Your task to perform on an android device: Go to Google Image 0: 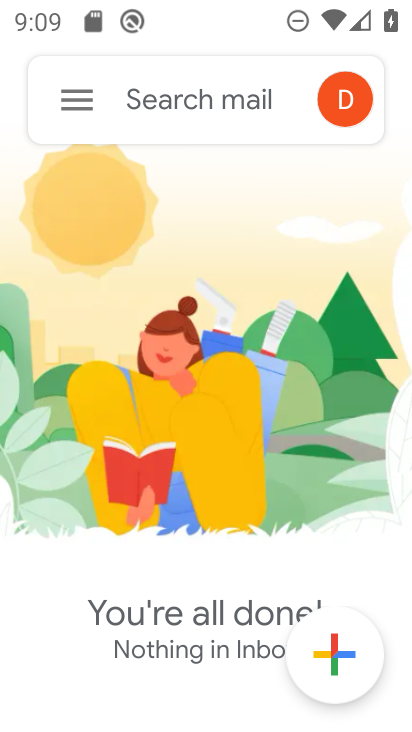
Step 0: press home button
Your task to perform on an android device: Go to Google Image 1: 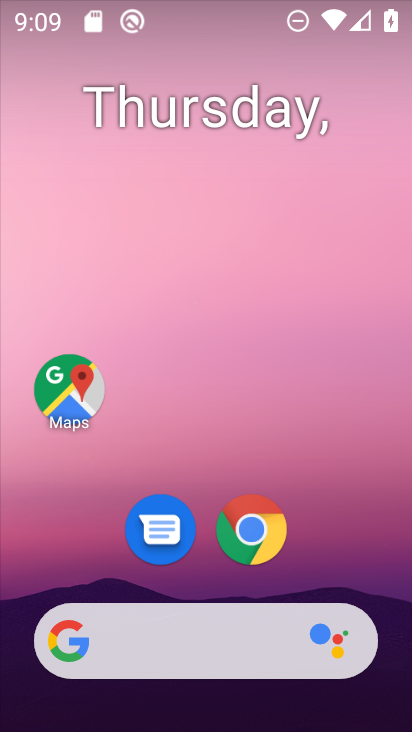
Step 1: drag from (226, 722) to (234, 520)
Your task to perform on an android device: Go to Google Image 2: 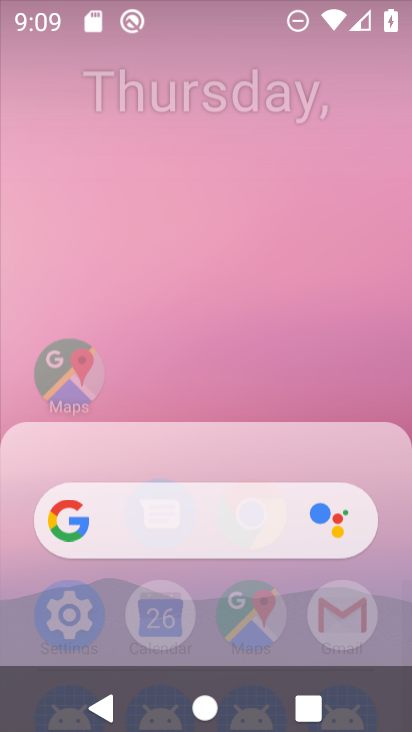
Step 2: click (234, 156)
Your task to perform on an android device: Go to Google Image 3: 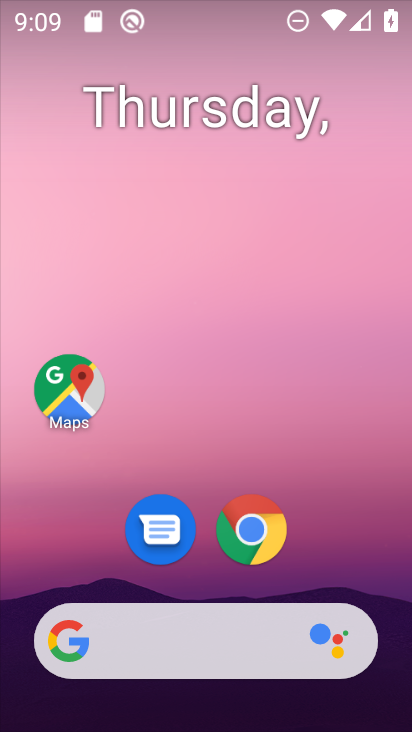
Step 3: drag from (225, 723) to (240, 4)
Your task to perform on an android device: Go to Google Image 4: 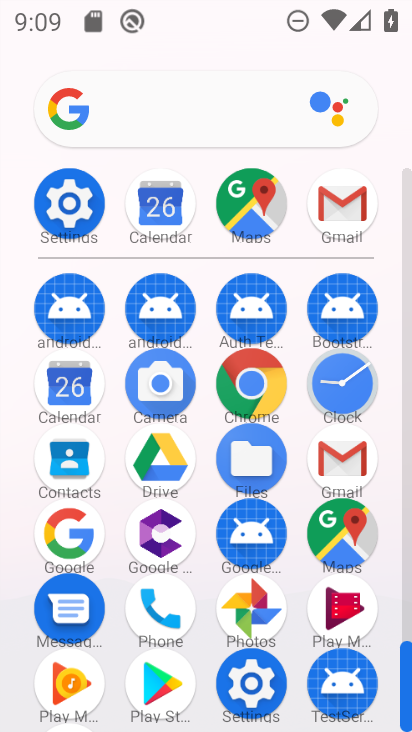
Step 4: click (73, 535)
Your task to perform on an android device: Go to Google Image 5: 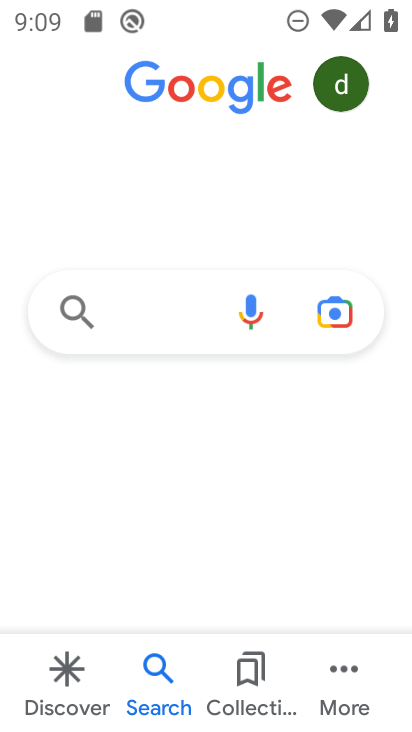
Step 5: task complete